Your task to perform on an android device: Search for razer blade on costco.com, select the first entry, add it to the cart, then select checkout. Image 0: 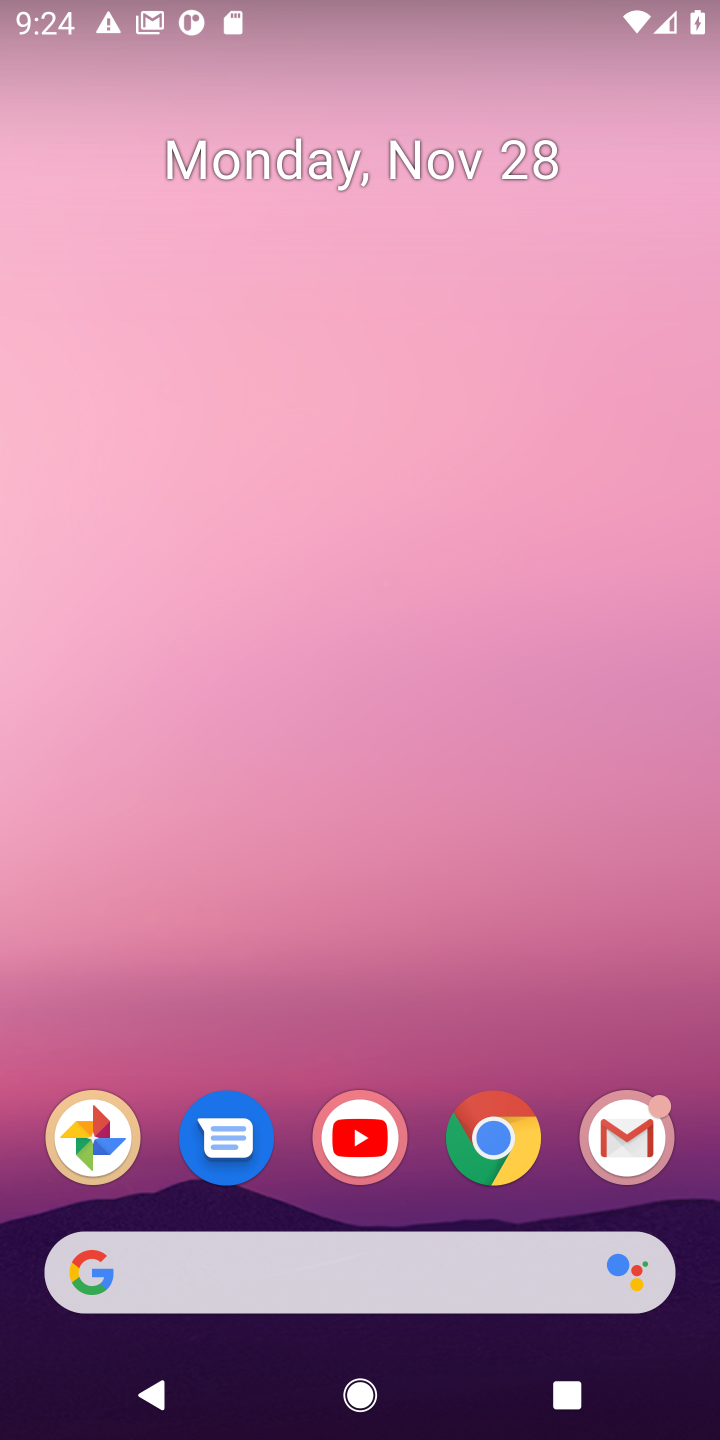
Step 0: click (480, 1140)
Your task to perform on an android device: Search for razer blade on costco.com, select the first entry, add it to the cart, then select checkout. Image 1: 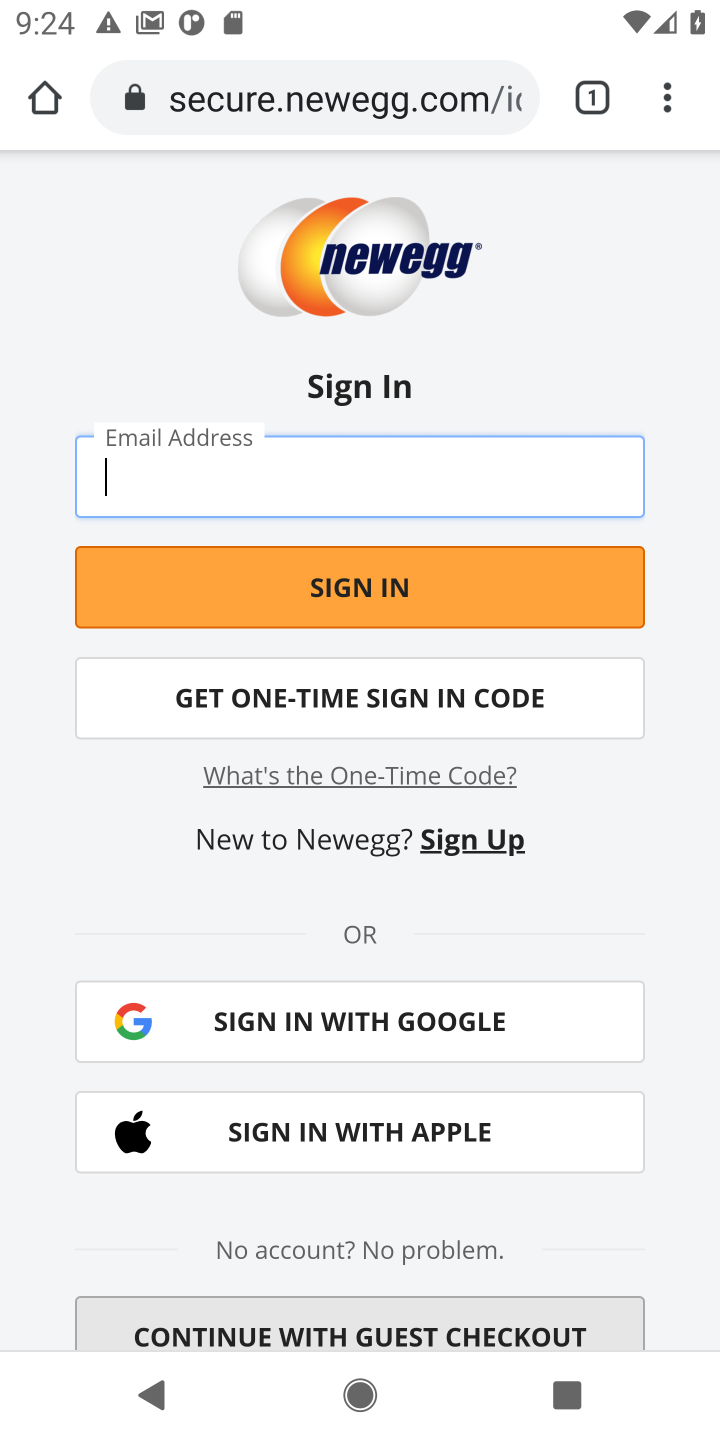
Step 1: click (242, 109)
Your task to perform on an android device: Search for razer blade on costco.com, select the first entry, add it to the cart, then select checkout. Image 2: 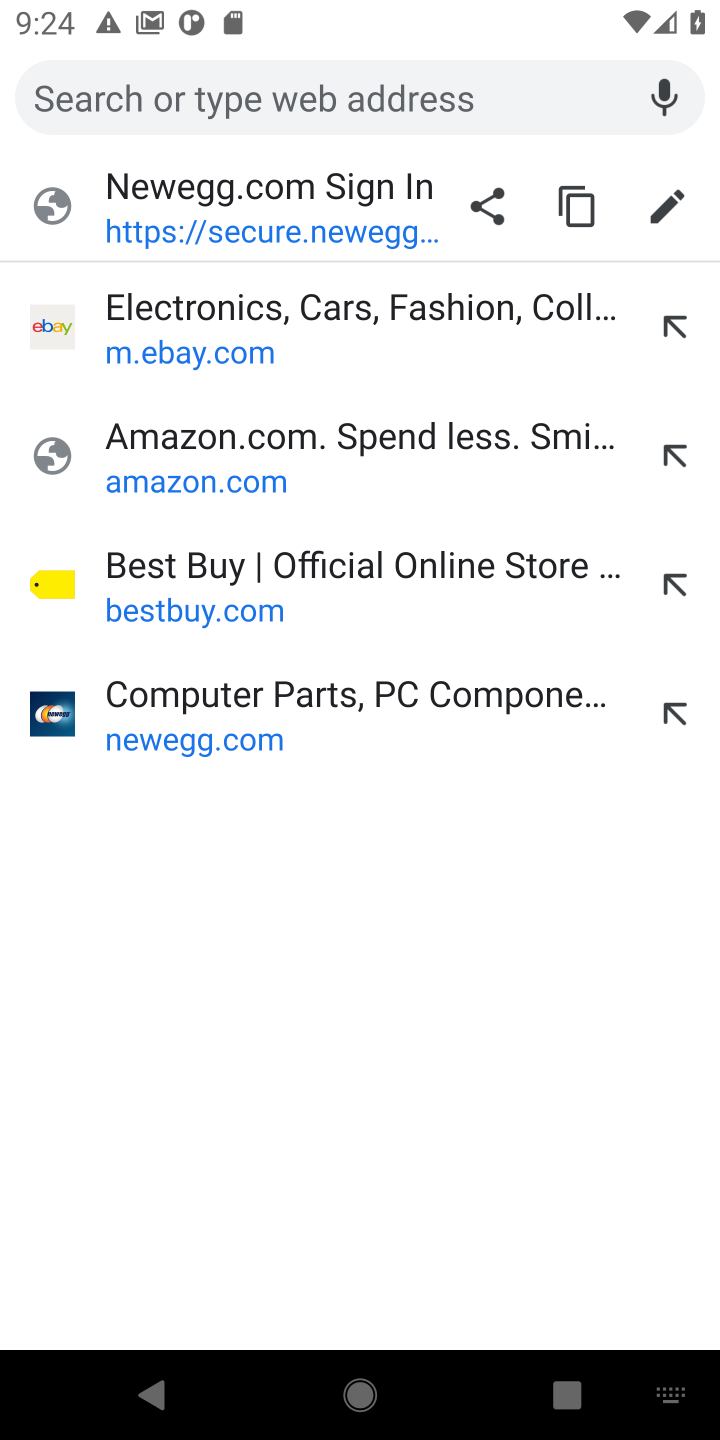
Step 2: type "costco.com"
Your task to perform on an android device: Search for razer blade on costco.com, select the first entry, add it to the cart, then select checkout. Image 3: 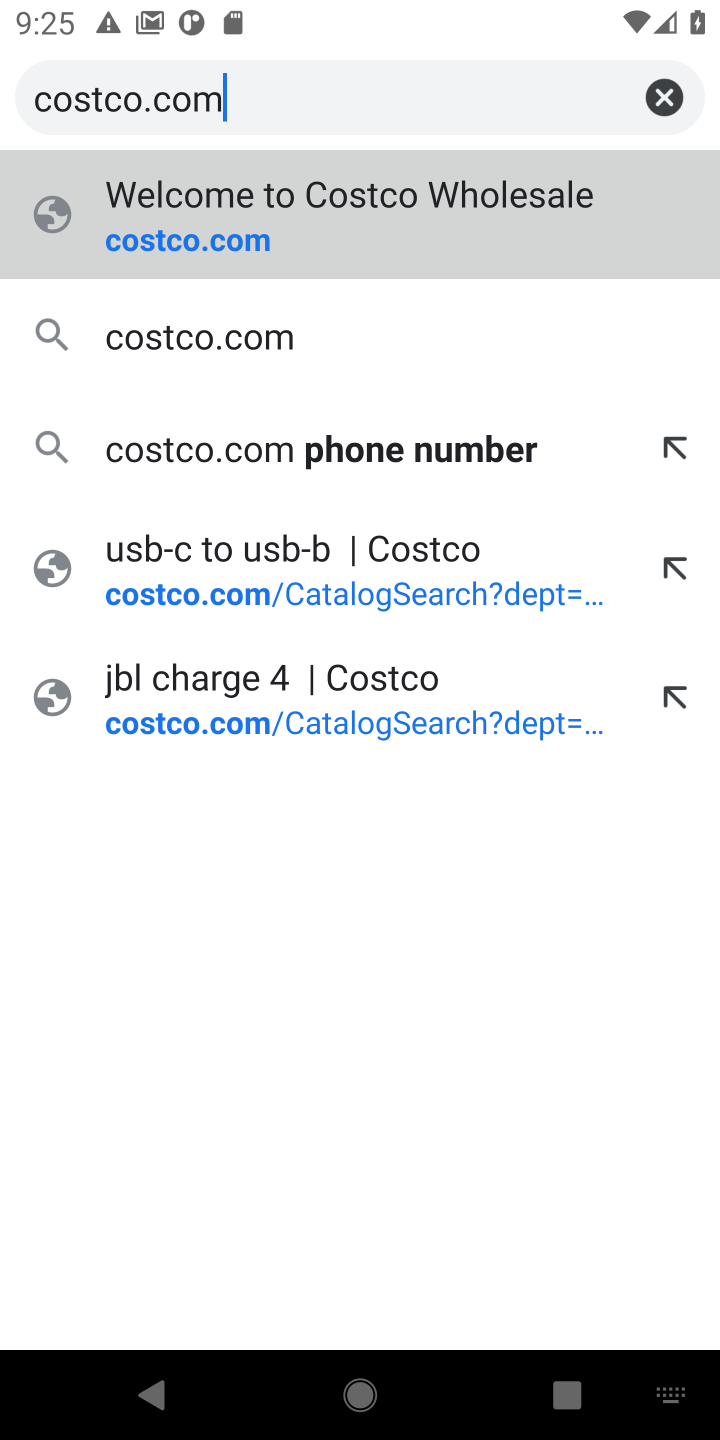
Step 3: click (192, 251)
Your task to perform on an android device: Search for razer blade on costco.com, select the first entry, add it to the cart, then select checkout. Image 4: 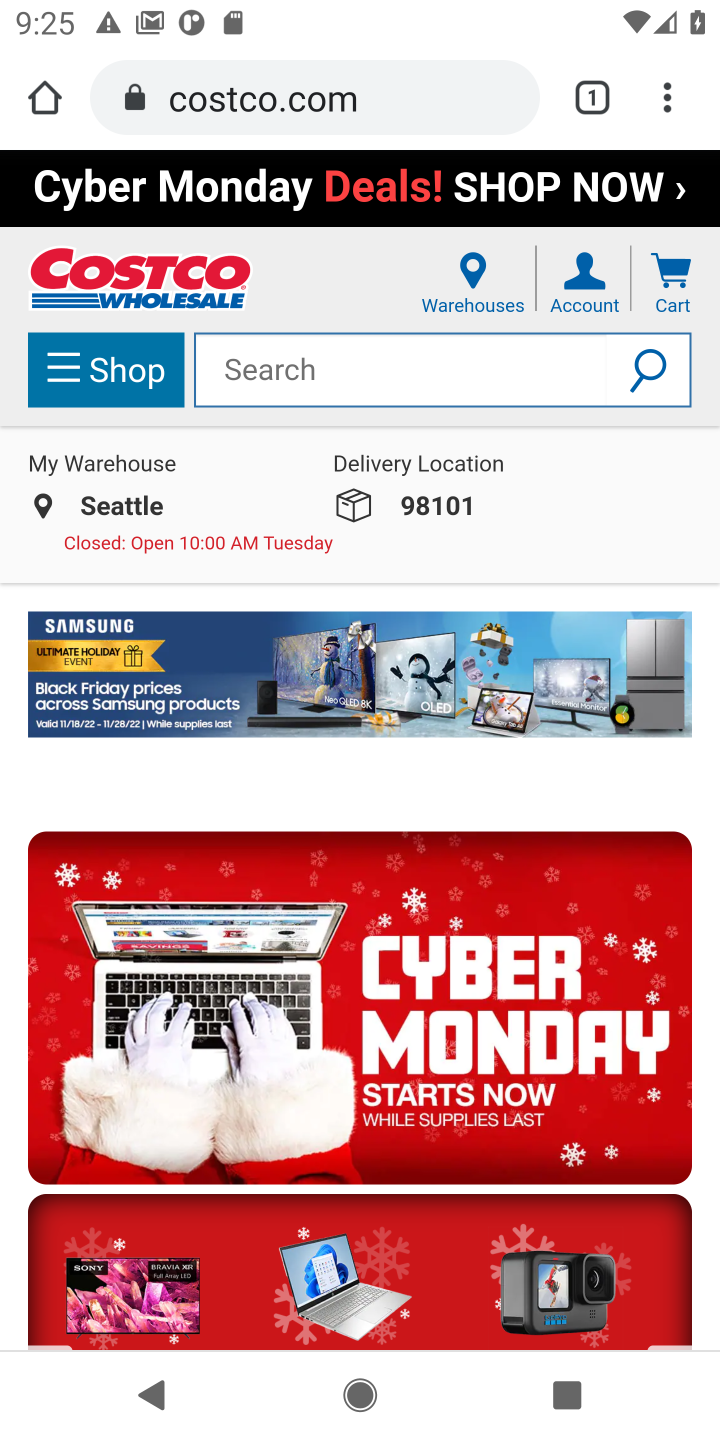
Step 4: click (266, 367)
Your task to perform on an android device: Search for razer blade on costco.com, select the first entry, add it to the cart, then select checkout. Image 5: 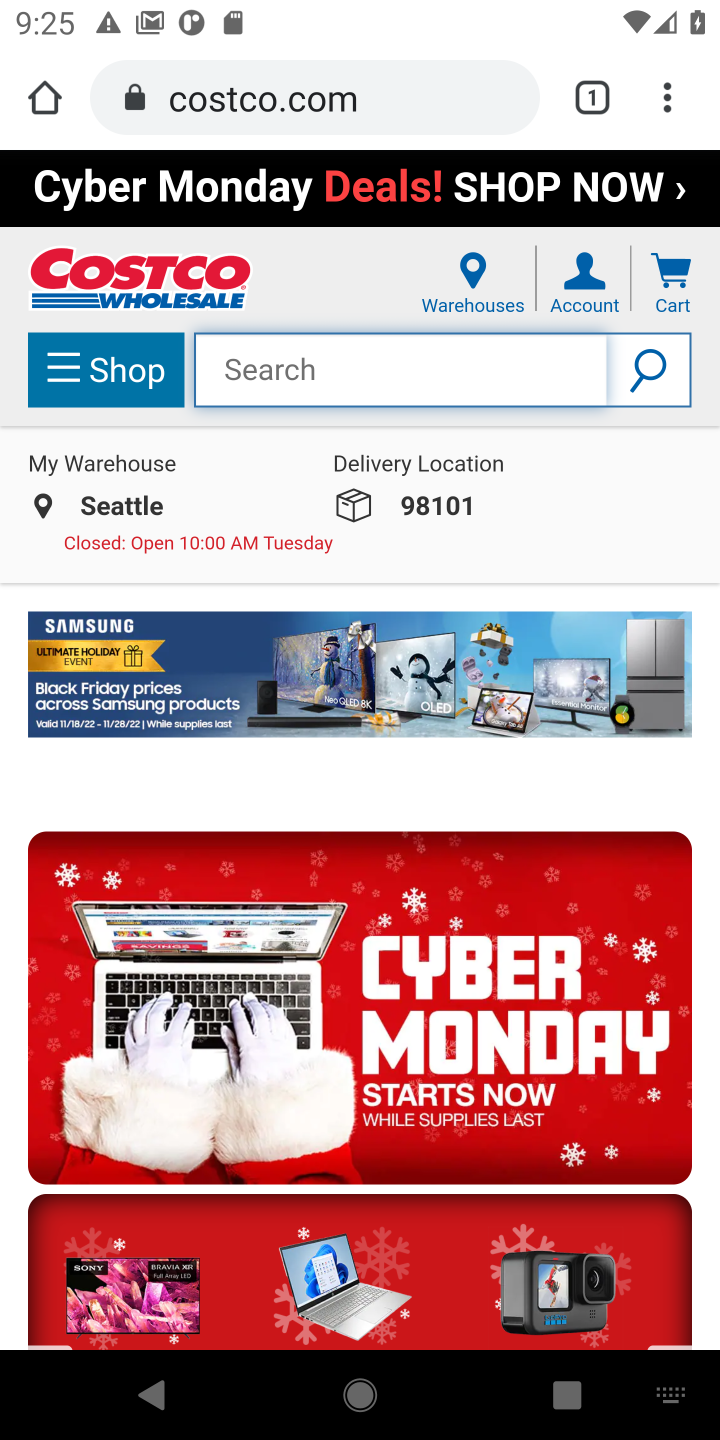
Step 5: type "razer blade"
Your task to perform on an android device: Search for razer blade on costco.com, select the first entry, add it to the cart, then select checkout. Image 6: 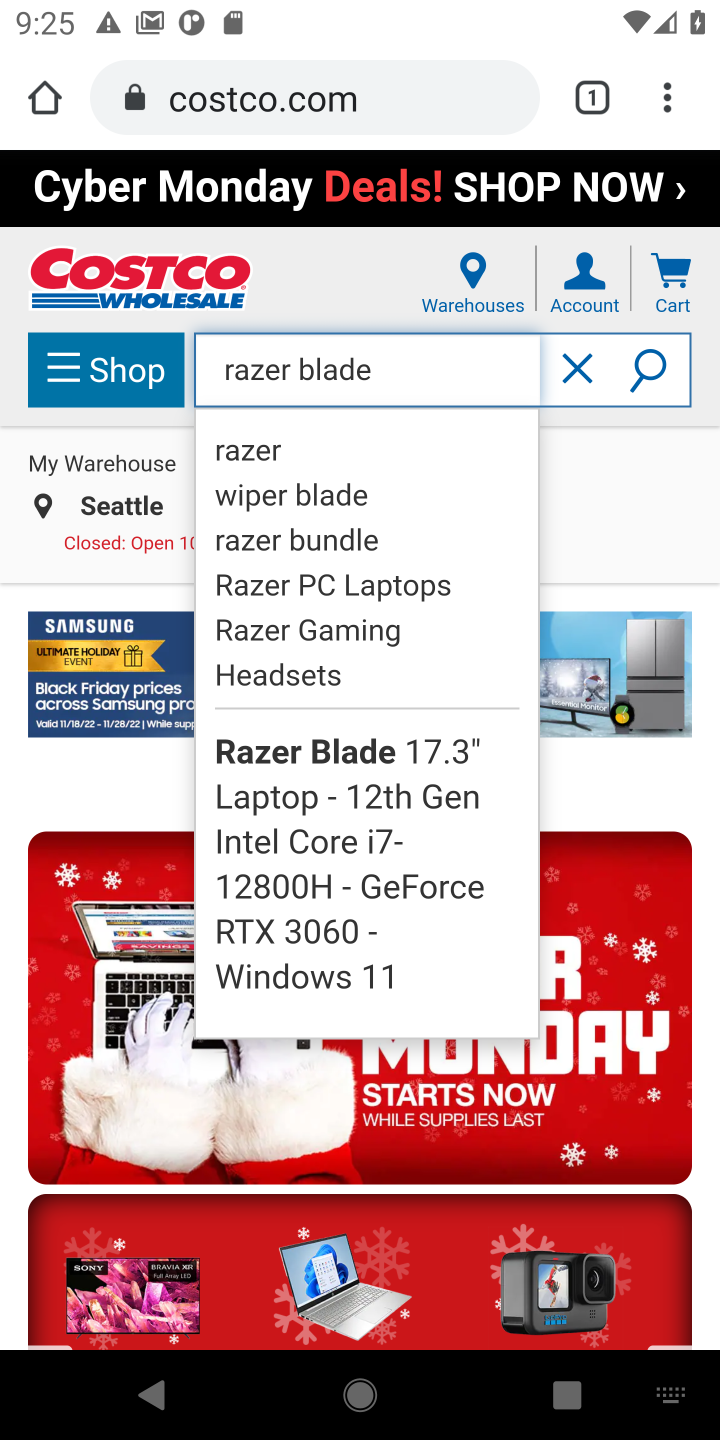
Step 6: click (634, 394)
Your task to perform on an android device: Search for razer blade on costco.com, select the first entry, add it to the cart, then select checkout. Image 7: 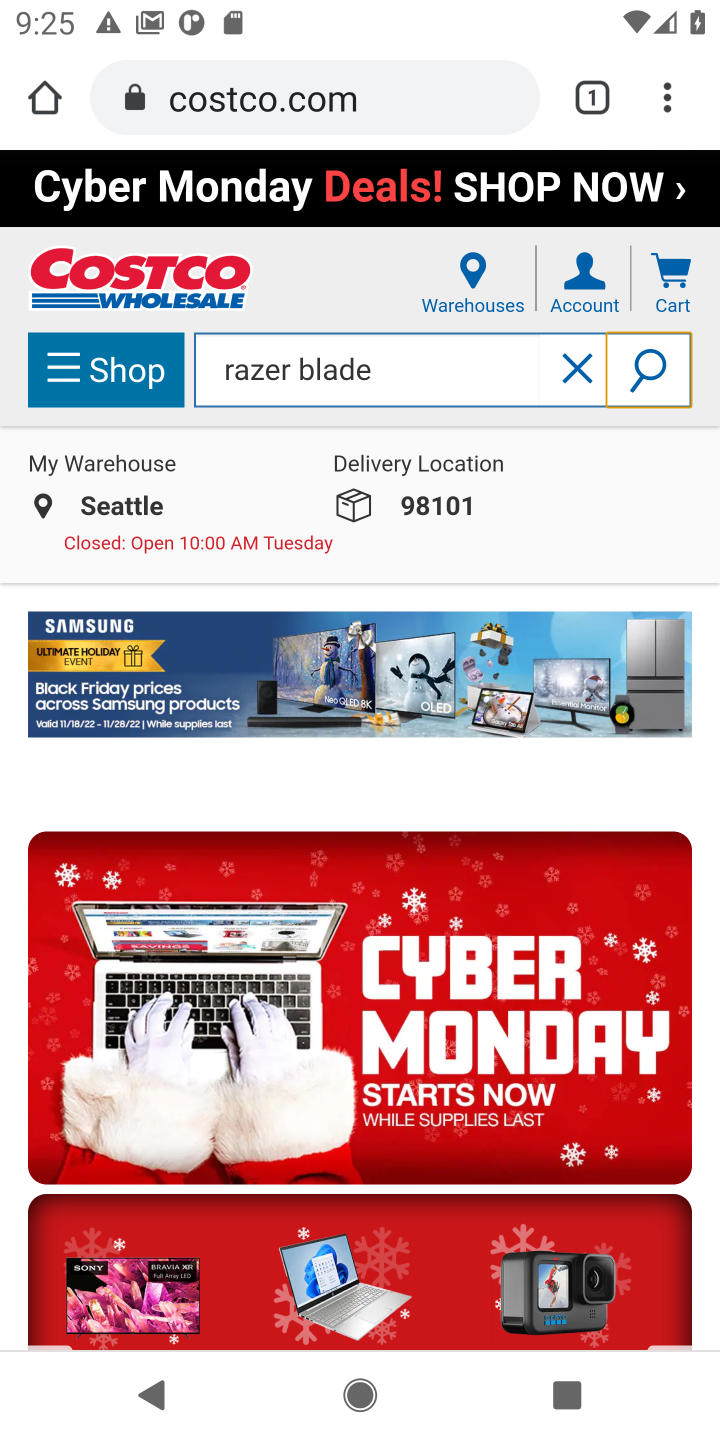
Step 7: click (644, 371)
Your task to perform on an android device: Search for razer blade on costco.com, select the first entry, add it to the cart, then select checkout. Image 8: 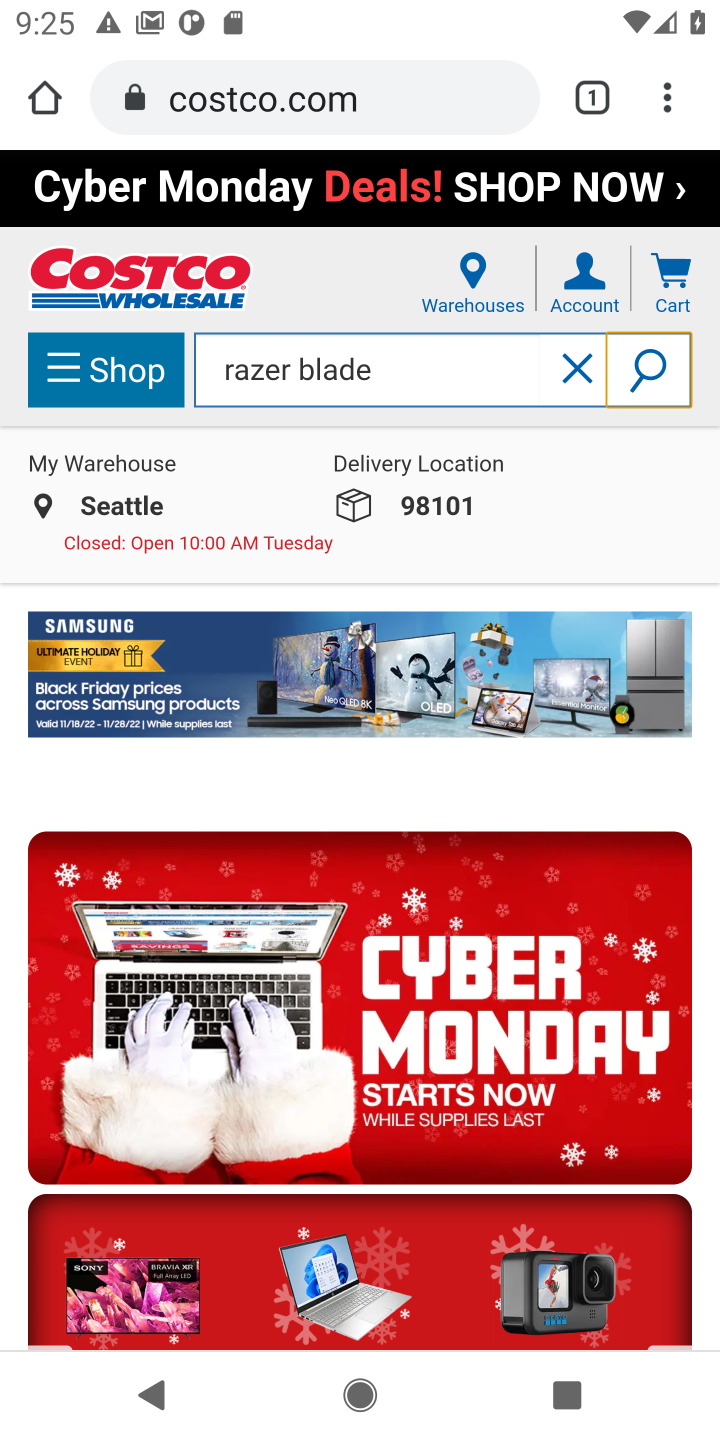
Step 8: click (635, 375)
Your task to perform on an android device: Search for razer blade on costco.com, select the first entry, add it to the cart, then select checkout. Image 9: 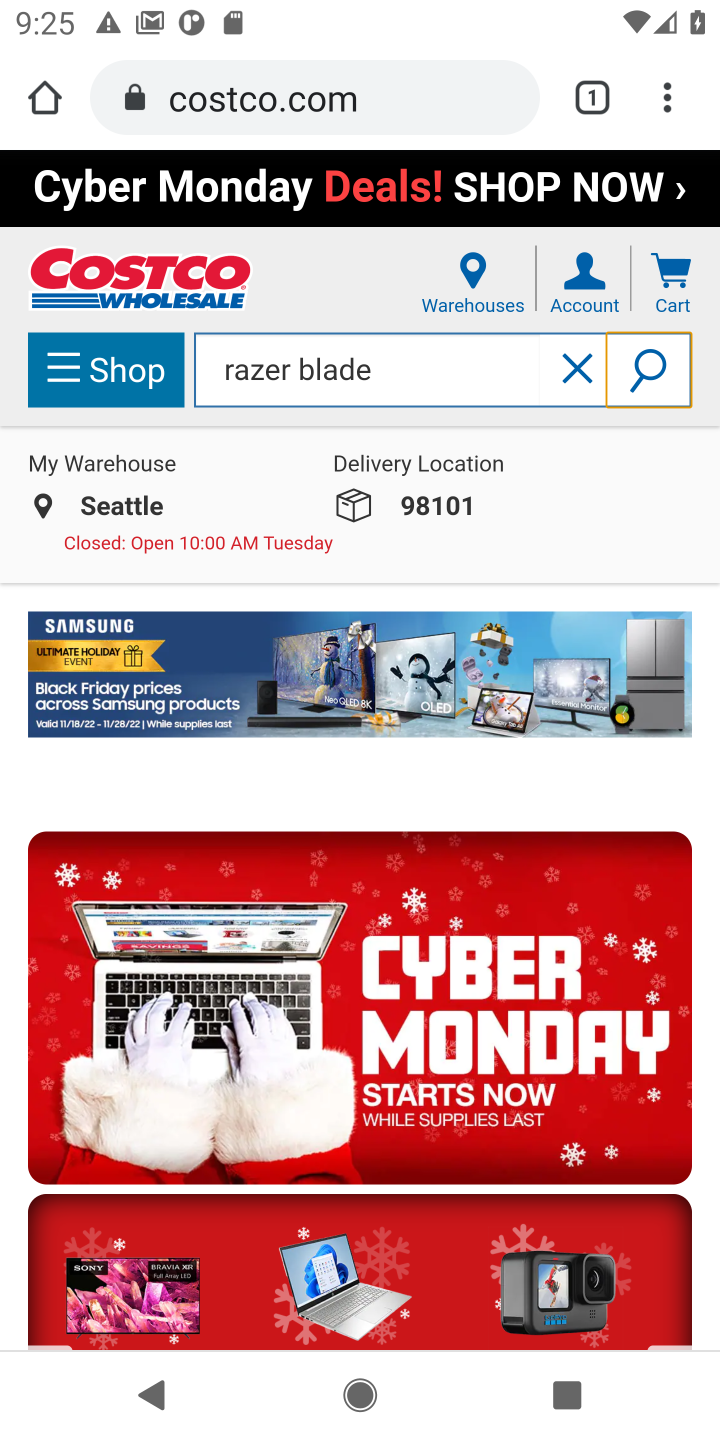
Step 9: click (645, 370)
Your task to perform on an android device: Search for razer blade on costco.com, select the first entry, add it to the cart, then select checkout. Image 10: 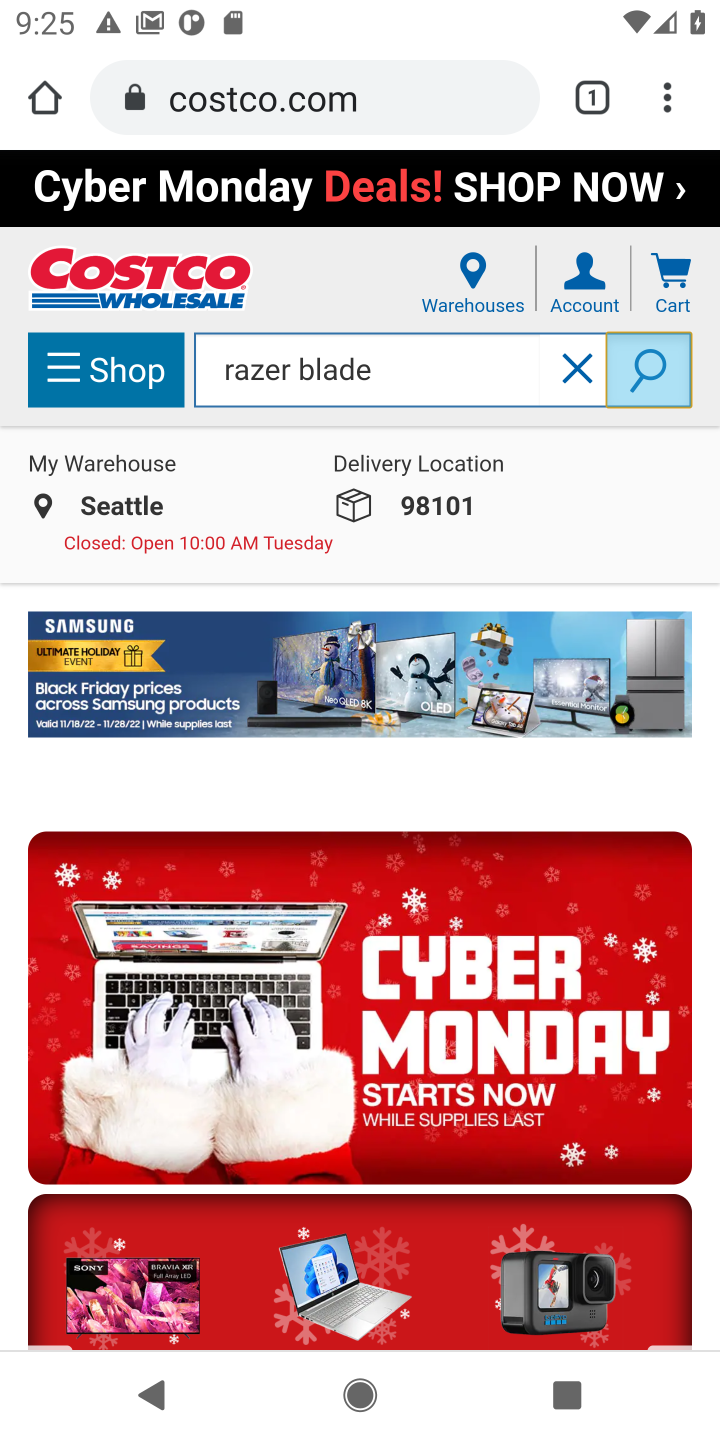
Step 10: drag from (399, 921) to (414, 497)
Your task to perform on an android device: Search for razer blade on costco.com, select the first entry, add it to the cart, then select checkout. Image 11: 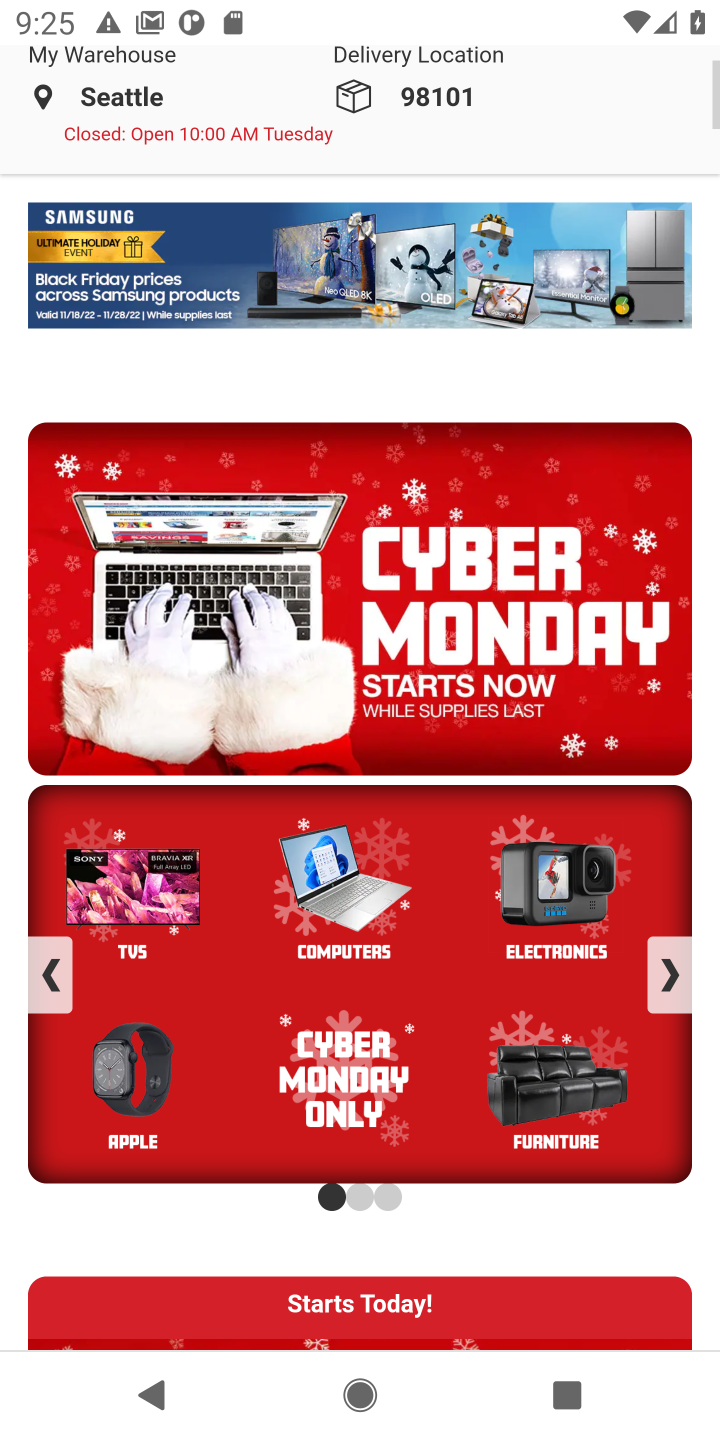
Step 11: drag from (375, 962) to (392, 575)
Your task to perform on an android device: Search for razer blade on costco.com, select the first entry, add it to the cart, then select checkout. Image 12: 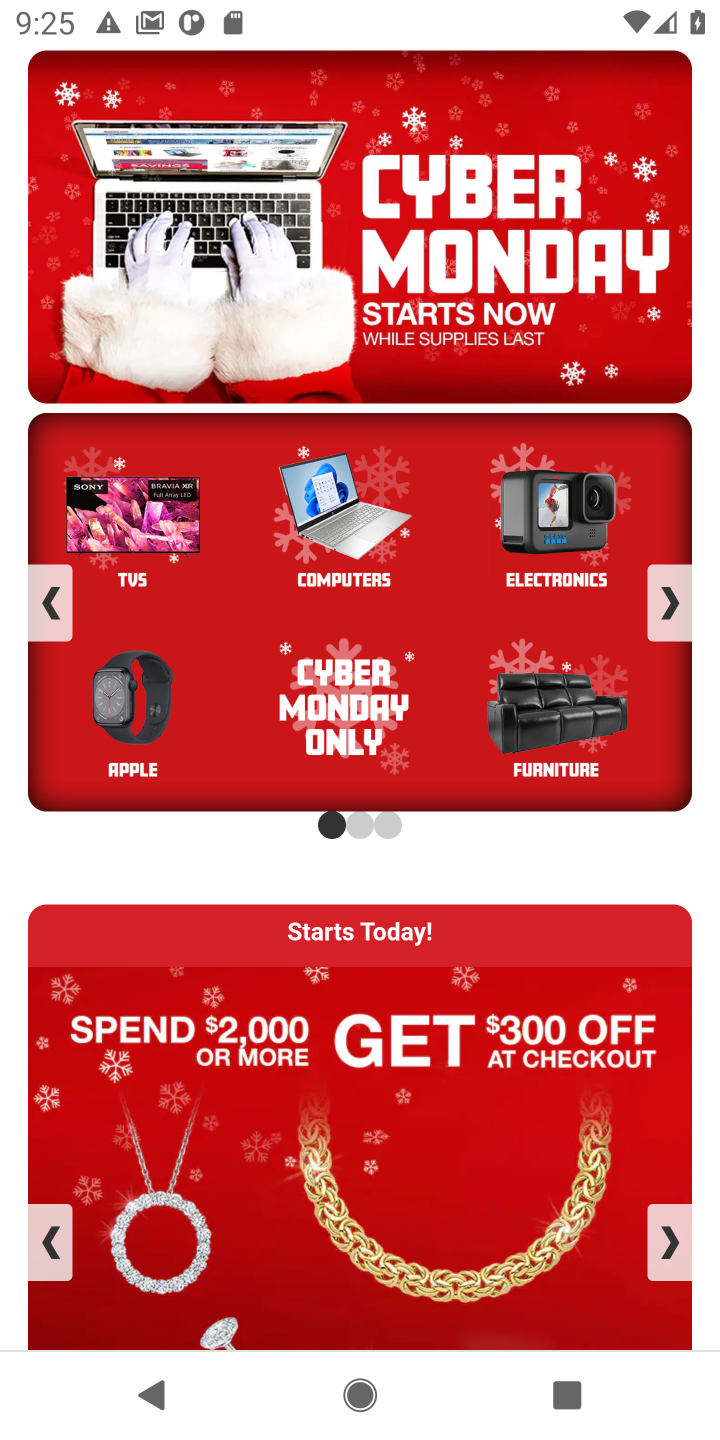
Step 12: drag from (403, 610) to (393, 1296)
Your task to perform on an android device: Search for razer blade on costco.com, select the first entry, add it to the cart, then select checkout. Image 13: 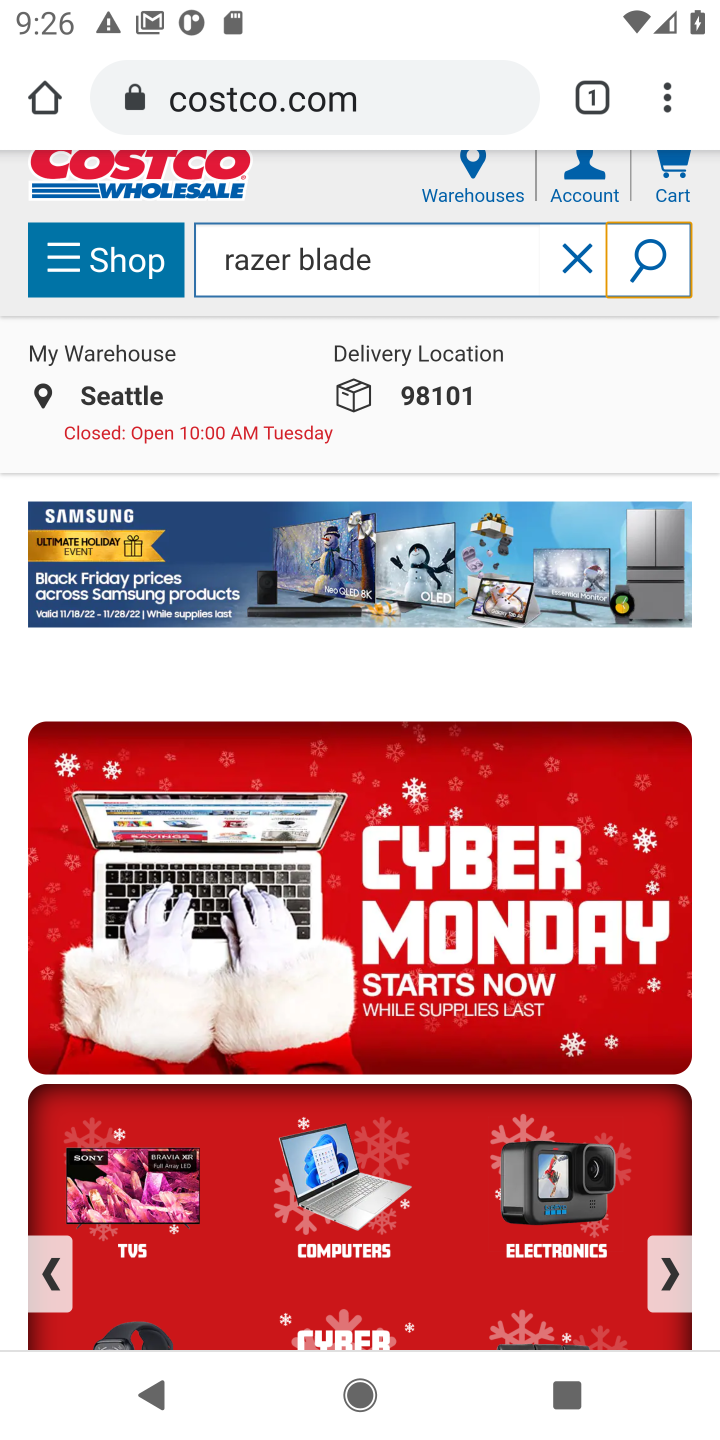
Step 13: drag from (456, 555) to (455, 721)
Your task to perform on an android device: Search for razer blade on costco.com, select the first entry, add it to the cart, then select checkout. Image 14: 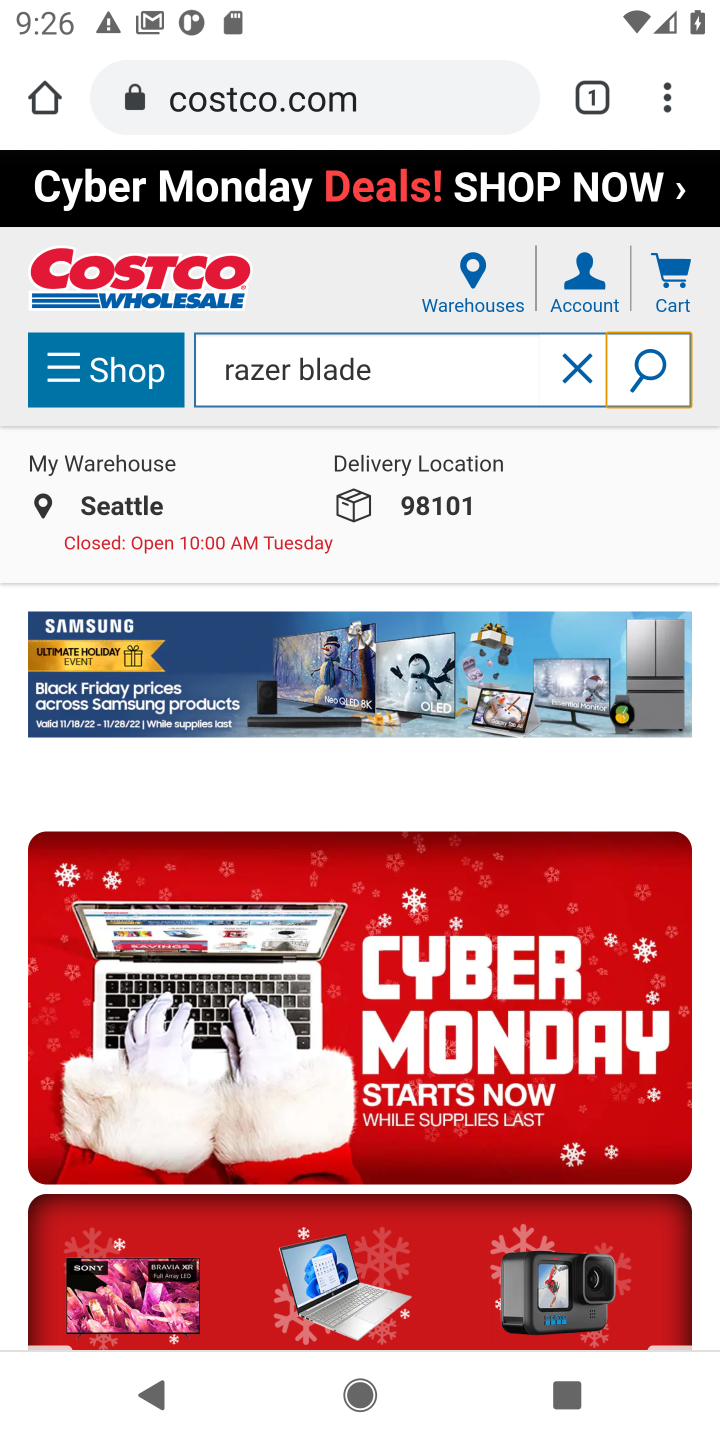
Step 14: click (649, 357)
Your task to perform on an android device: Search for razer blade on costco.com, select the first entry, add it to the cart, then select checkout. Image 15: 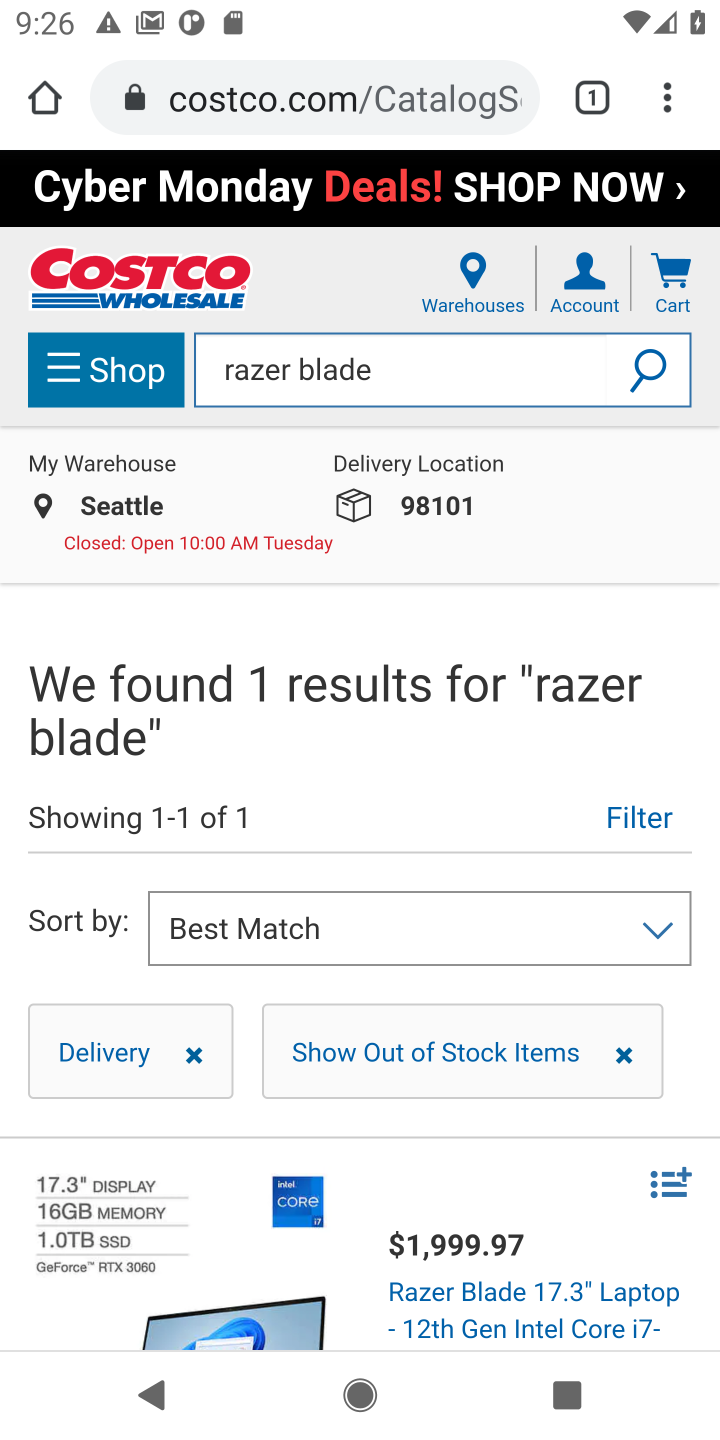
Step 15: drag from (322, 815) to (398, 409)
Your task to perform on an android device: Search for razer blade on costco.com, select the first entry, add it to the cart, then select checkout. Image 16: 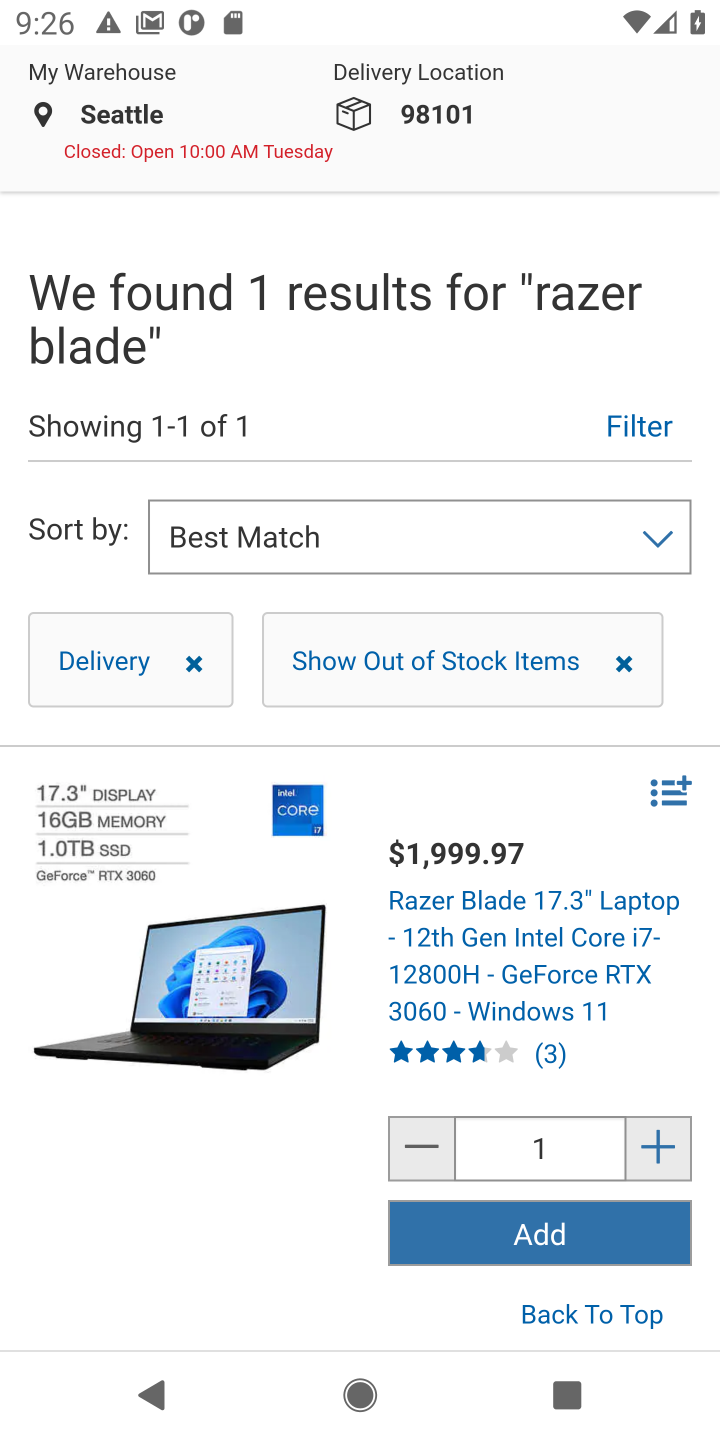
Step 16: click (524, 1244)
Your task to perform on an android device: Search for razer blade on costco.com, select the first entry, add it to the cart, then select checkout. Image 17: 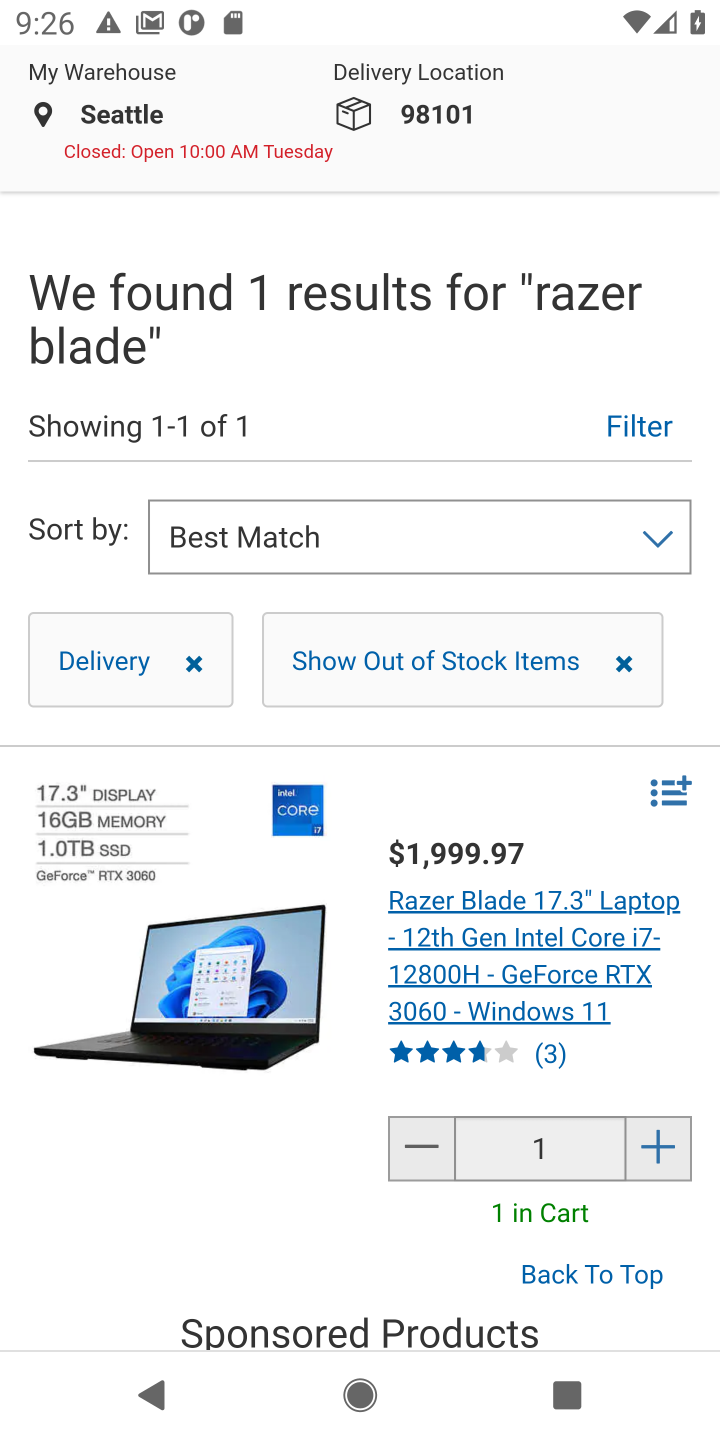
Step 17: drag from (507, 425) to (460, 924)
Your task to perform on an android device: Search for razer blade on costco.com, select the first entry, add it to the cart, then select checkout. Image 18: 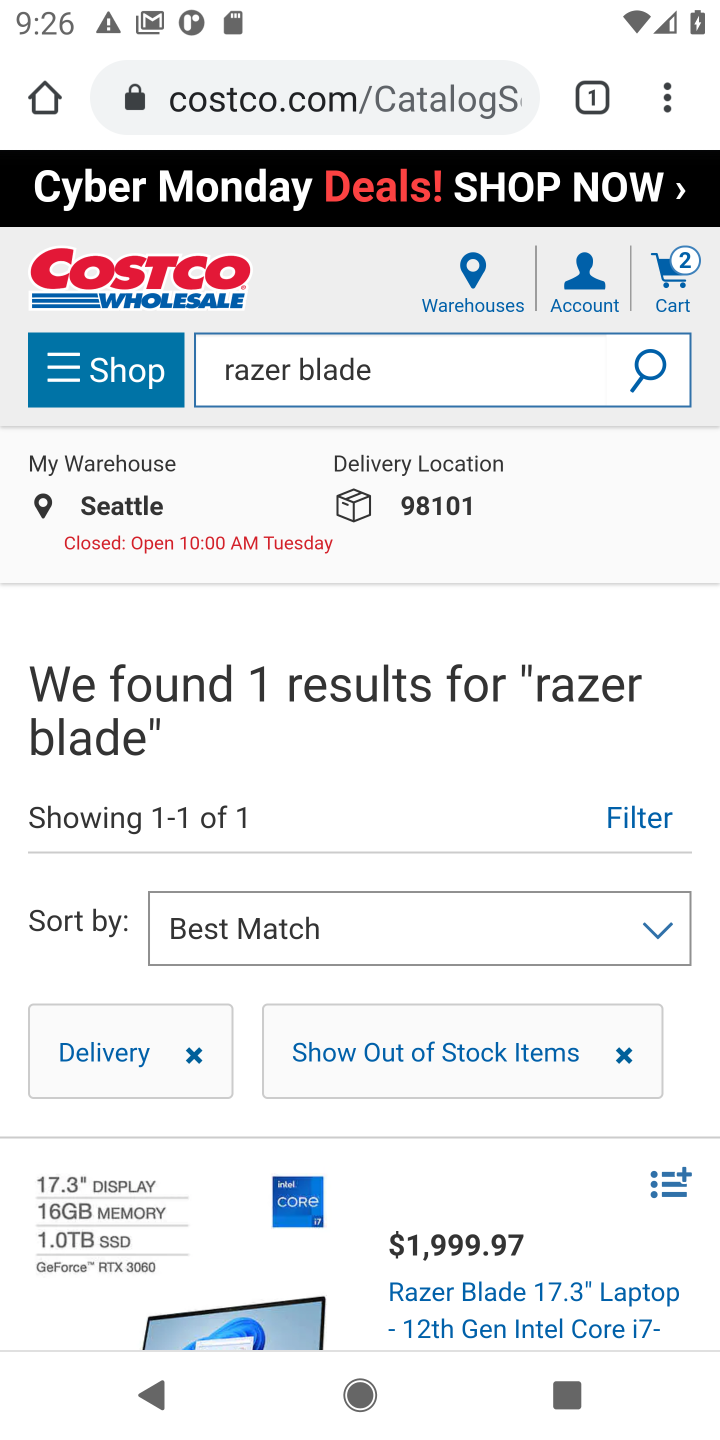
Step 18: click (661, 290)
Your task to perform on an android device: Search for razer blade on costco.com, select the first entry, add it to the cart, then select checkout. Image 19: 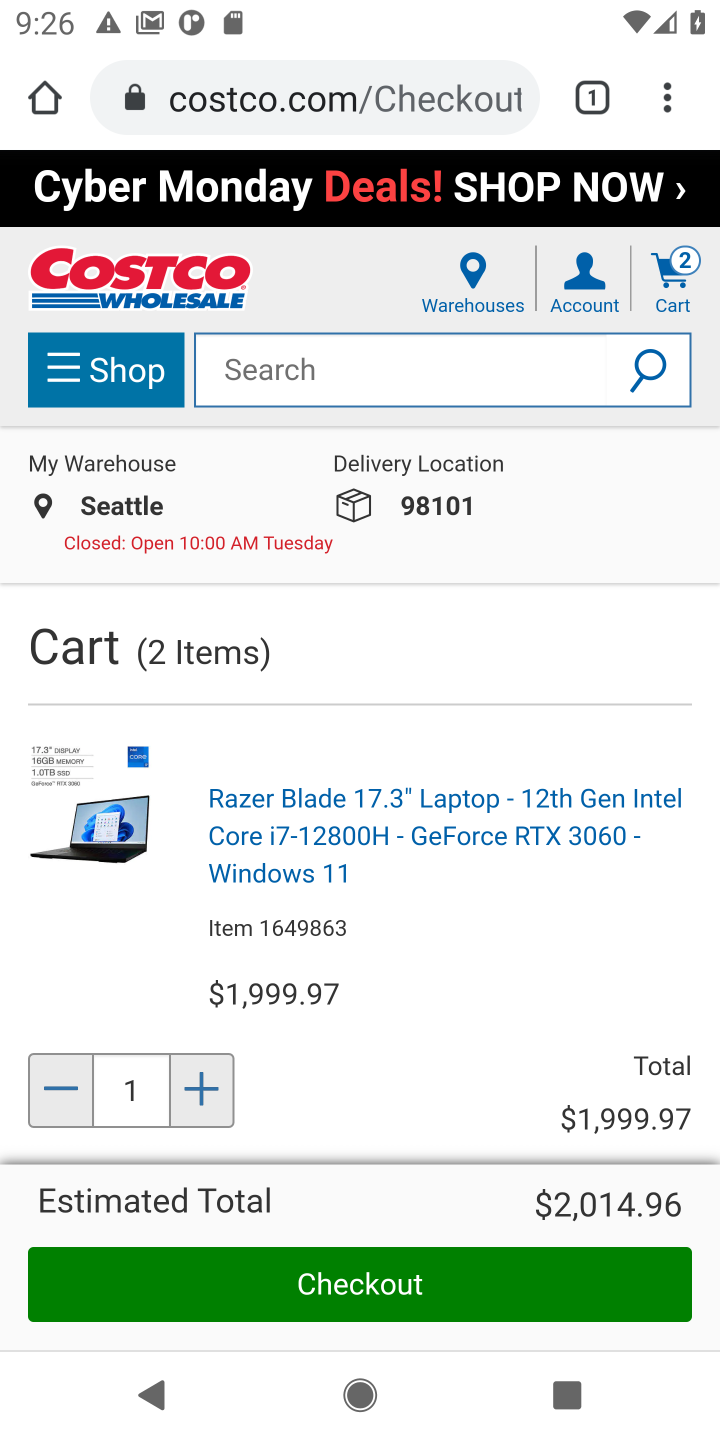
Step 19: click (368, 1288)
Your task to perform on an android device: Search for razer blade on costco.com, select the first entry, add it to the cart, then select checkout. Image 20: 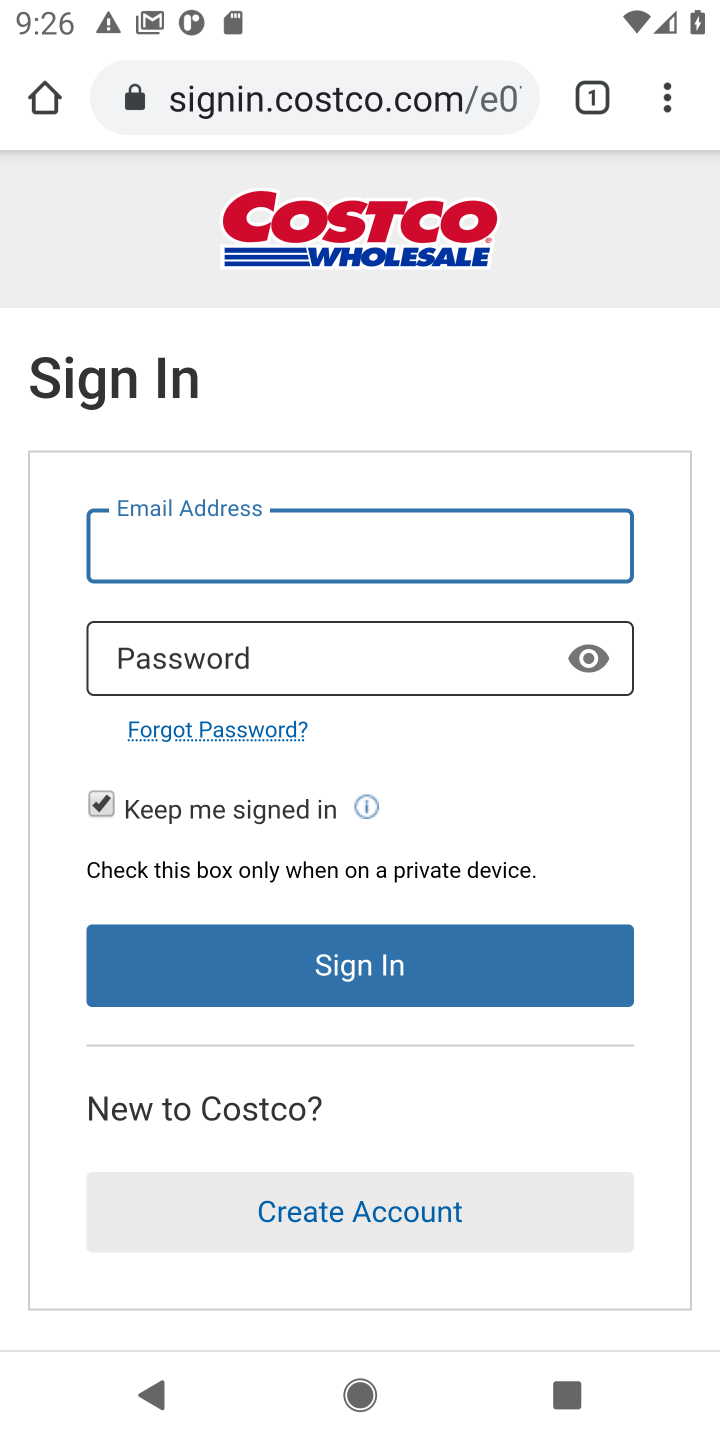
Step 20: task complete